Your task to perform on an android device: Is it going to rain tomorrow? Image 0: 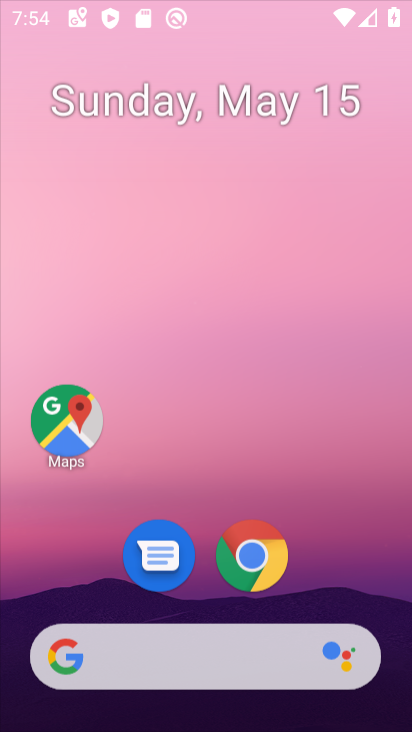
Step 0: click (205, 662)
Your task to perform on an android device: Is it going to rain tomorrow? Image 1: 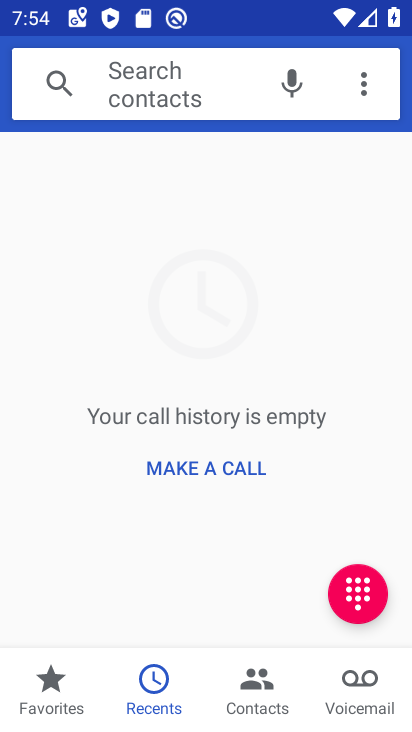
Step 1: press home button
Your task to perform on an android device: Is it going to rain tomorrow? Image 2: 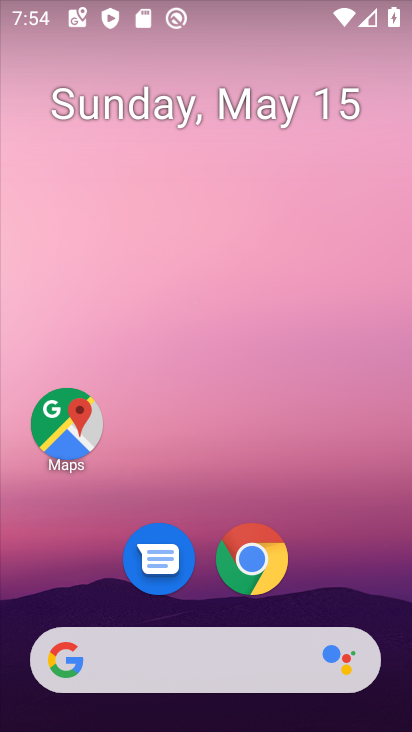
Step 2: click (222, 667)
Your task to perform on an android device: Is it going to rain tomorrow? Image 3: 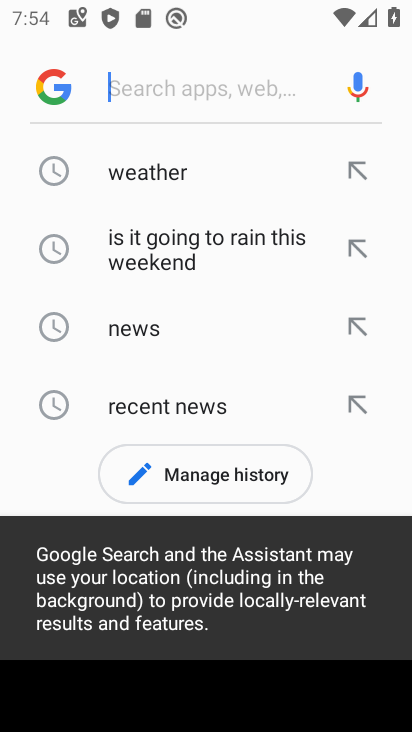
Step 3: click (196, 317)
Your task to perform on an android device: Is it going to rain tomorrow? Image 4: 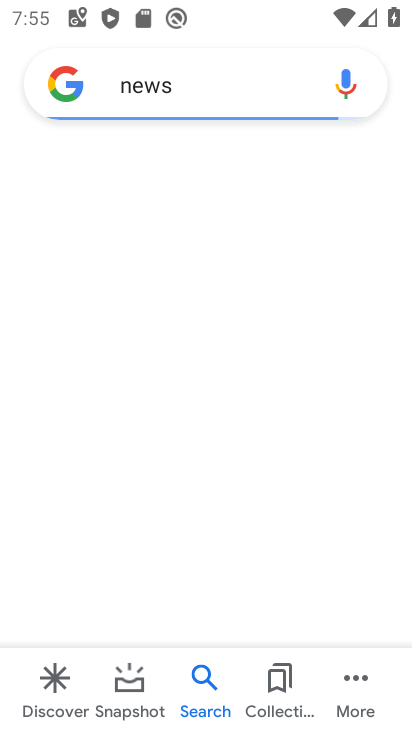
Step 4: task complete